Your task to perform on an android device: Open settings on Google Maps Image 0: 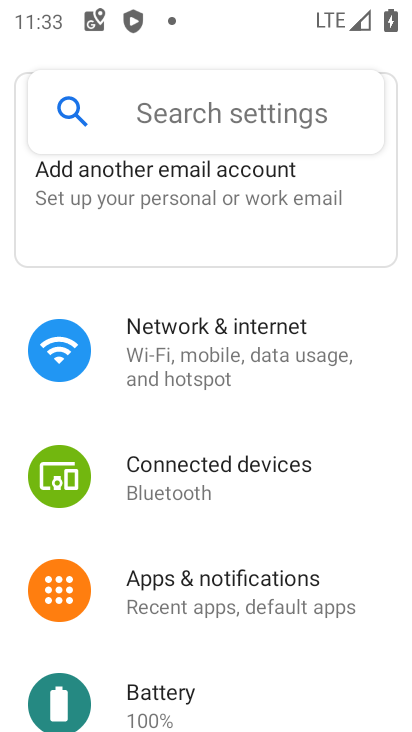
Step 0: press back button
Your task to perform on an android device: Open settings on Google Maps Image 1: 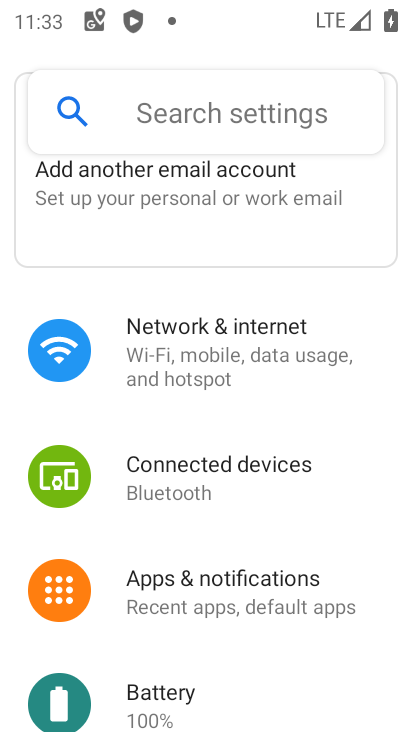
Step 1: press back button
Your task to perform on an android device: Open settings on Google Maps Image 2: 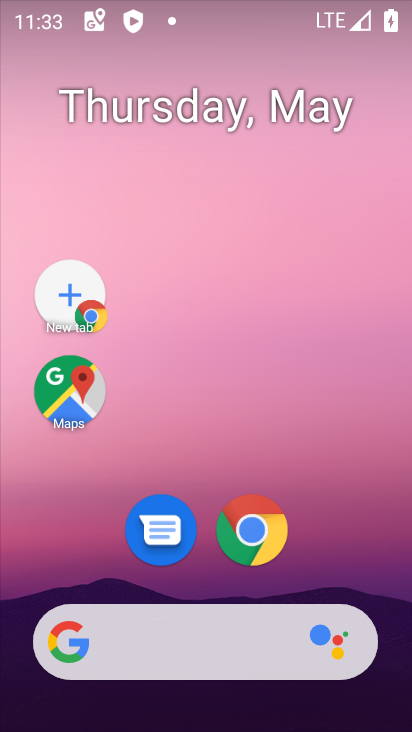
Step 2: drag from (267, 310) to (226, 142)
Your task to perform on an android device: Open settings on Google Maps Image 3: 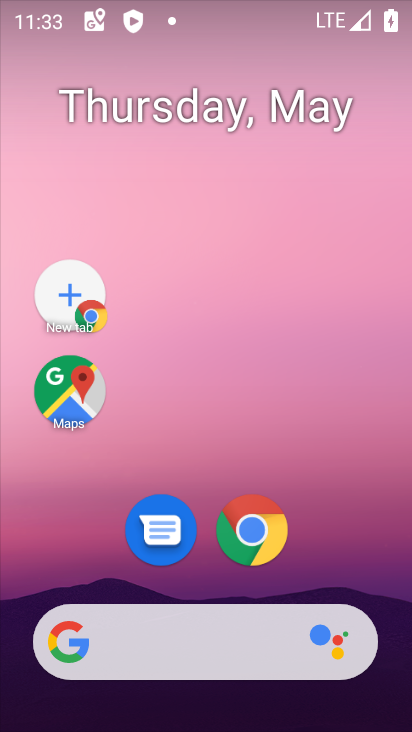
Step 3: drag from (330, 597) to (257, 281)
Your task to perform on an android device: Open settings on Google Maps Image 4: 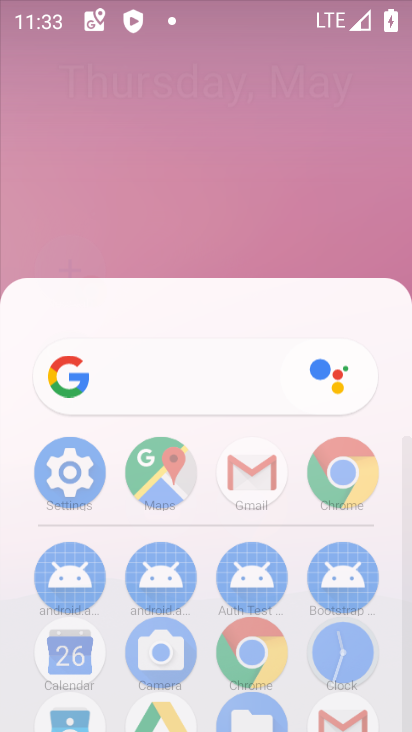
Step 4: drag from (171, 356) to (139, 118)
Your task to perform on an android device: Open settings on Google Maps Image 5: 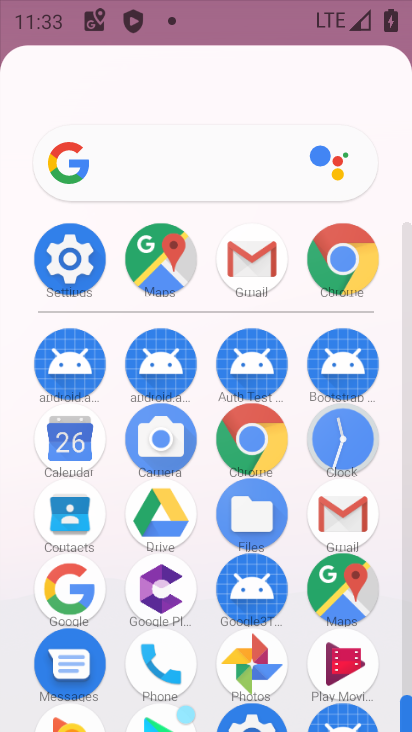
Step 5: drag from (190, 475) to (144, 159)
Your task to perform on an android device: Open settings on Google Maps Image 6: 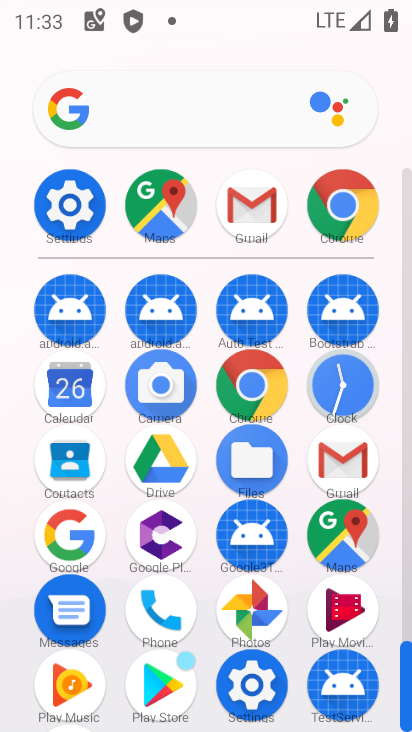
Step 6: click (208, 244)
Your task to perform on an android device: Open settings on Google Maps Image 7: 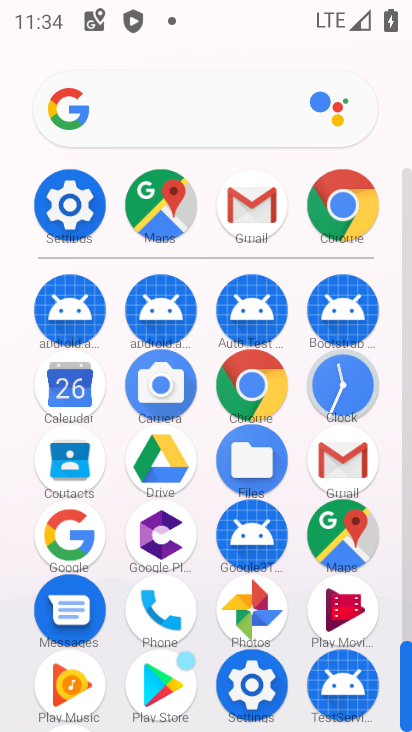
Step 7: click (336, 560)
Your task to perform on an android device: Open settings on Google Maps Image 8: 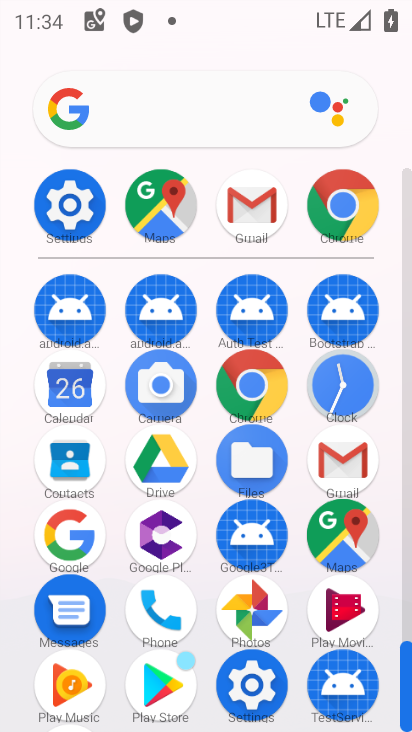
Step 8: click (343, 573)
Your task to perform on an android device: Open settings on Google Maps Image 9: 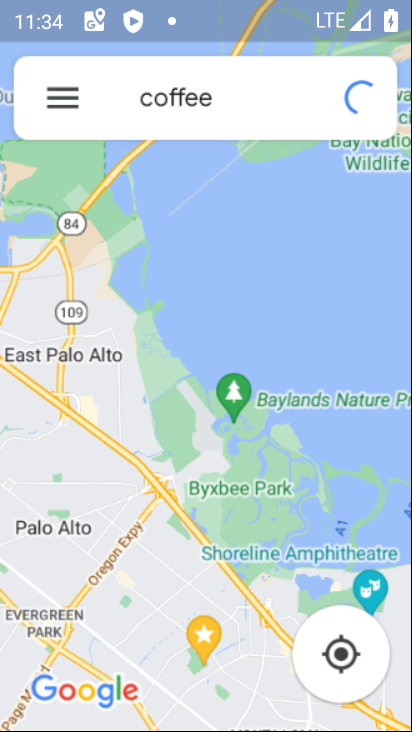
Step 9: click (340, 582)
Your task to perform on an android device: Open settings on Google Maps Image 10: 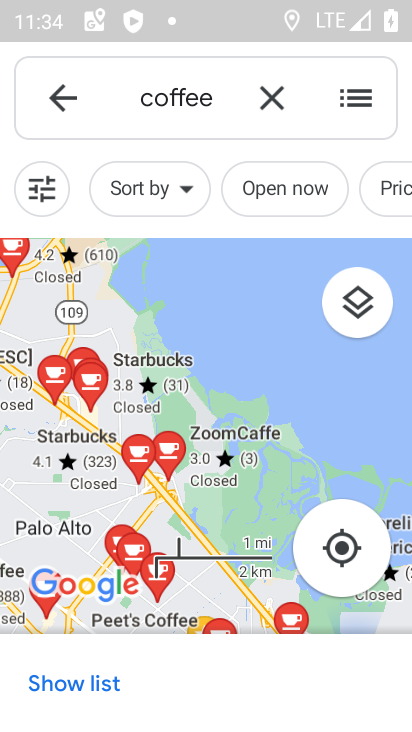
Step 10: click (286, 397)
Your task to perform on an android device: Open settings on Google Maps Image 11: 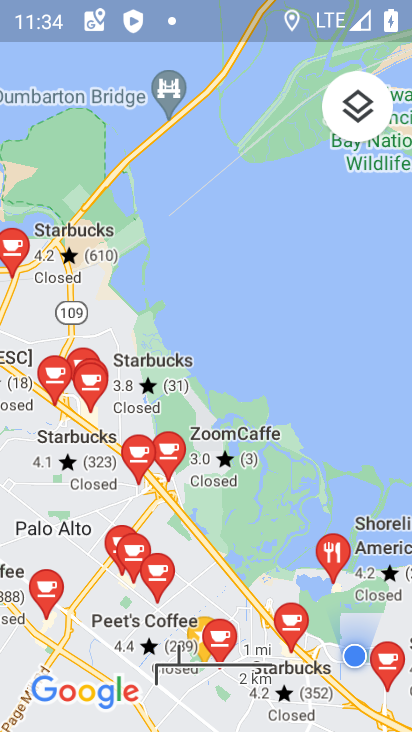
Step 11: click (395, 292)
Your task to perform on an android device: Open settings on Google Maps Image 12: 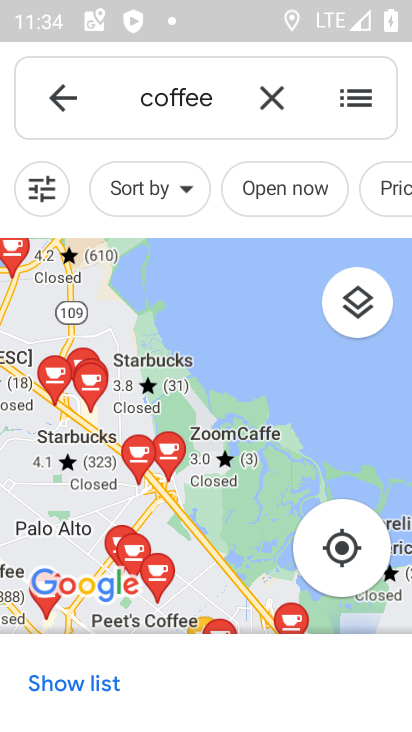
Step 12: click (59, 91)
Your task to perform on an android device: Open settings on Google Maps Image 13: 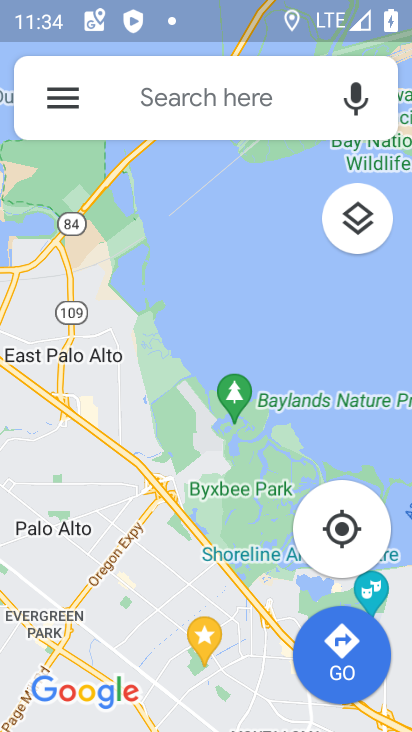
Step 13: click (79, 108)
Your task to perform on an android device: Open settings on Google Maps Image 14: 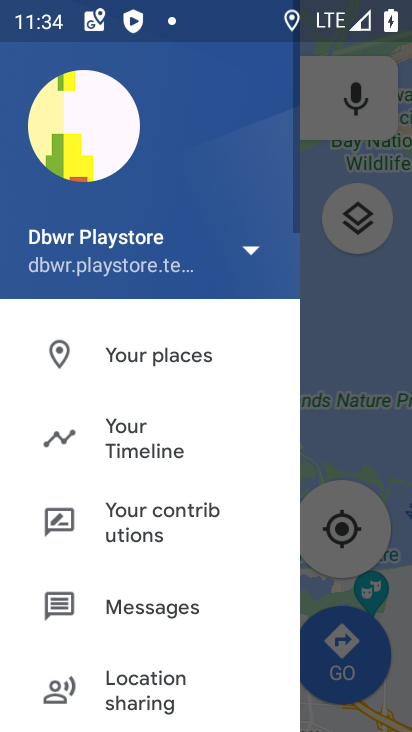
Step 14: click (156, 450)
Your task to perform on an android device: Open settings on Google Maps Image 15: 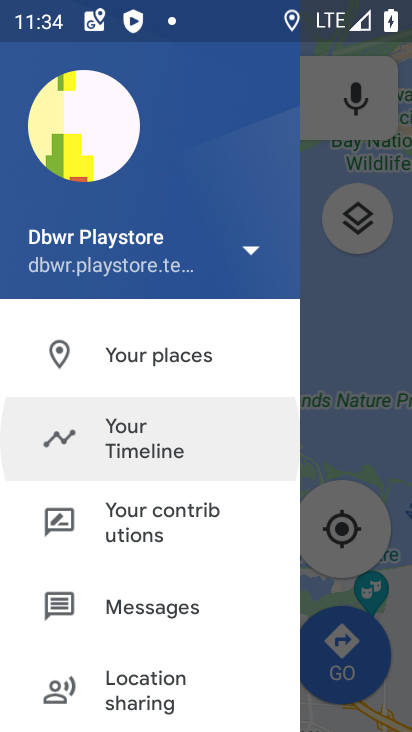
Step 15: click (152, 447)
Your task to perform on an android device: Open settings on Google Maps Image 16: 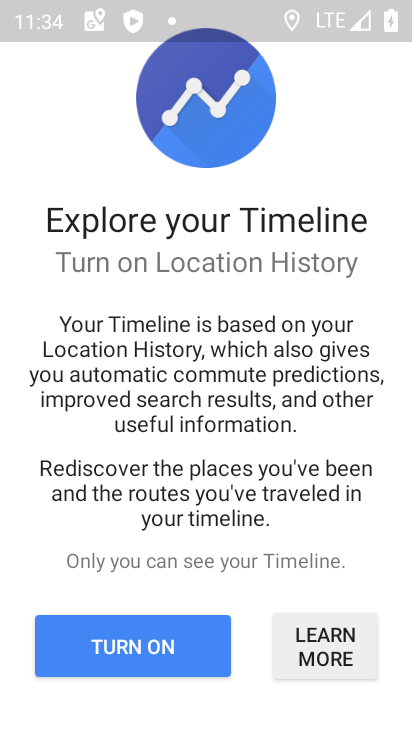
Step 16: click (173, 632)
Your task to perform on an android device: Open settings on Google Maps Image 17: 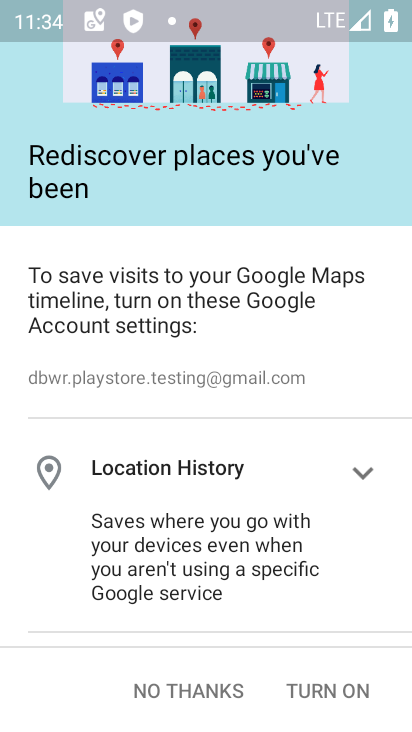
Step 17: click (184, 685)
Your task to perform on an android device: Open settings on Google Maps Image 18: 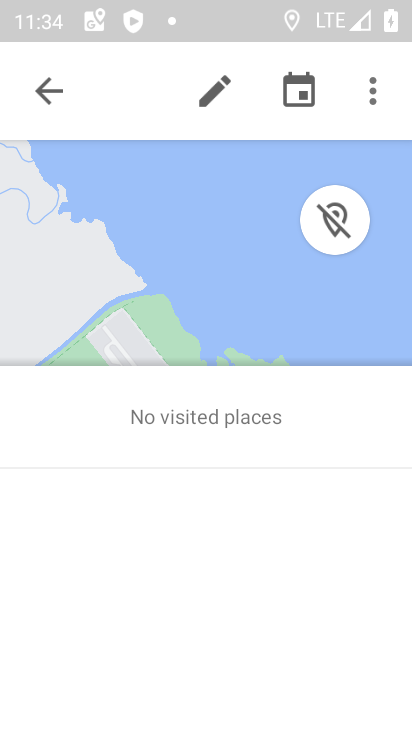
Step 18: click (371, 96)
Your task to perform on an android device: Open settings on Google Maps Image 19: 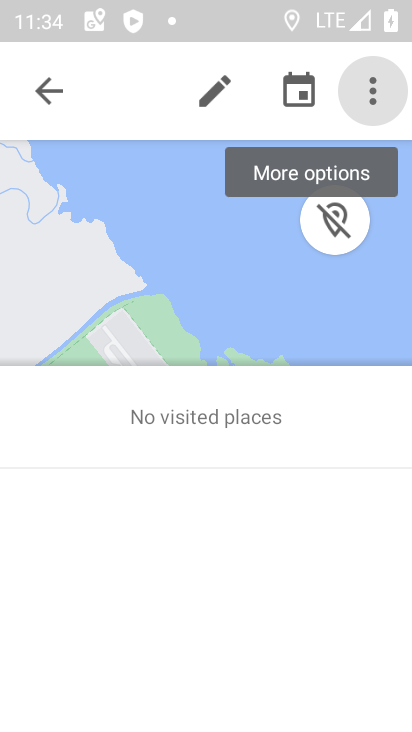
Step 19: click (371, 96)
Your task to perform on an android device: Open settings on Google Maps Image 20: 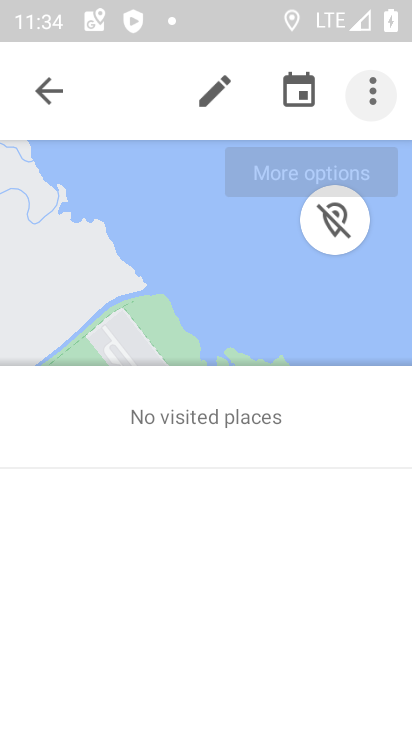
Step 20: click (371, 96)
Your task to perform on an android device: Open settings on Google Maps Image 21: 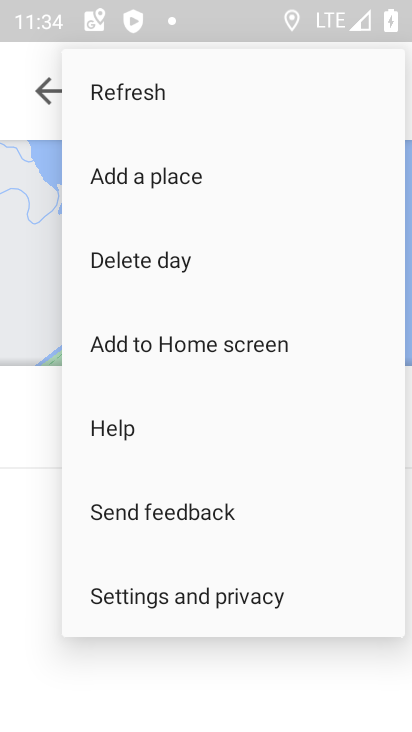
Step 21: click (191, 590)
Your task to perform on an android device: Open settings on Google Maps Image 22: 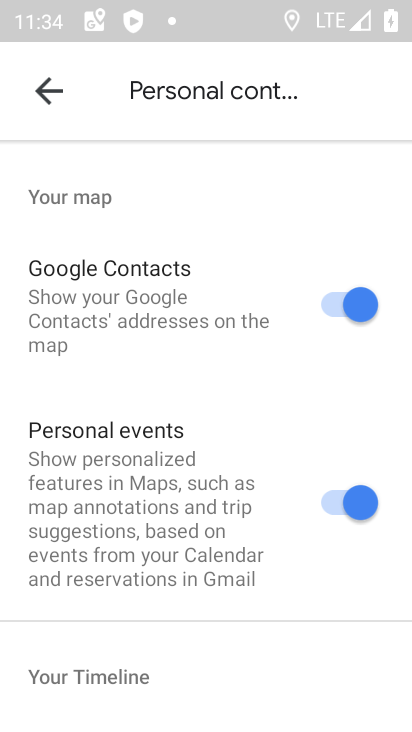
Step 22: task complete